Your task to perform on an android device: turn off javascript in the chrome app Image 0: 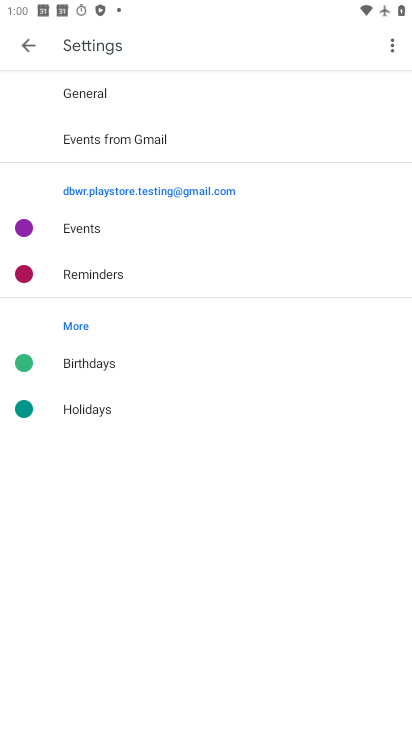
Step 0: press home button
Your task to perform on an android device: turn off javascript in the chrome app Image 1: 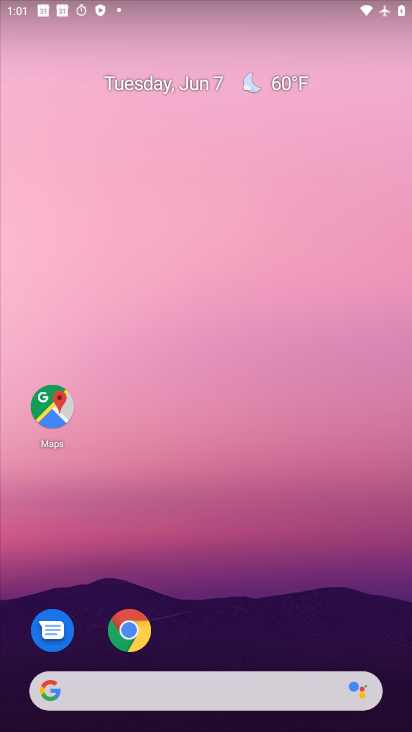
Step 1: drag from (353, 600) to (265, 103)
Your task to perform on an android device: turn off javascript in the chrome app Image 2: 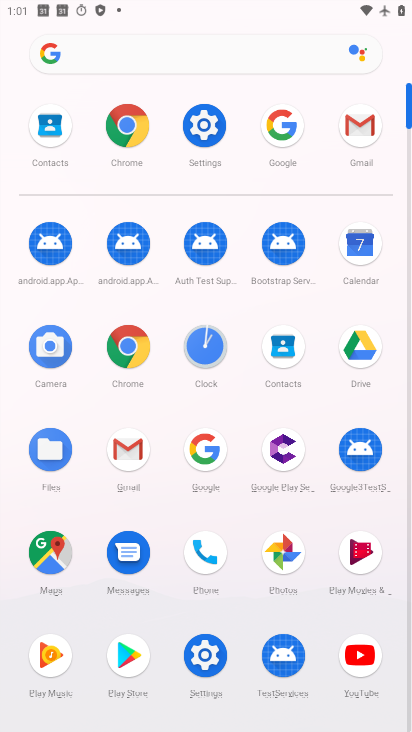
Step 2: click (115, 138)
Your task to perform on an android device: turn off javascript in the chrome app Image 3: 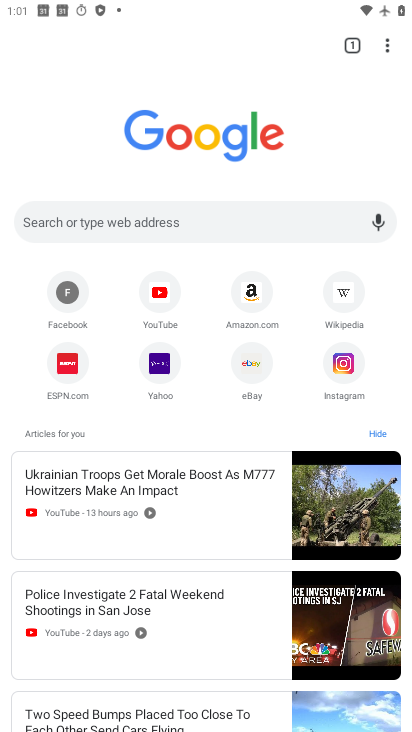
Step 3: click (392, 44)
Your task to perform on an android device: turn off javascript in the chrome app Image 4: 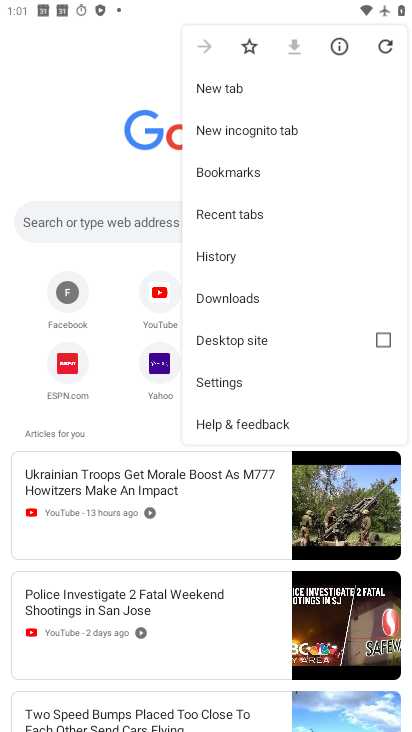
Step 4: click (271, 384)
Your task to perform on an android device: turn off javascript in the chrome app Image 5: 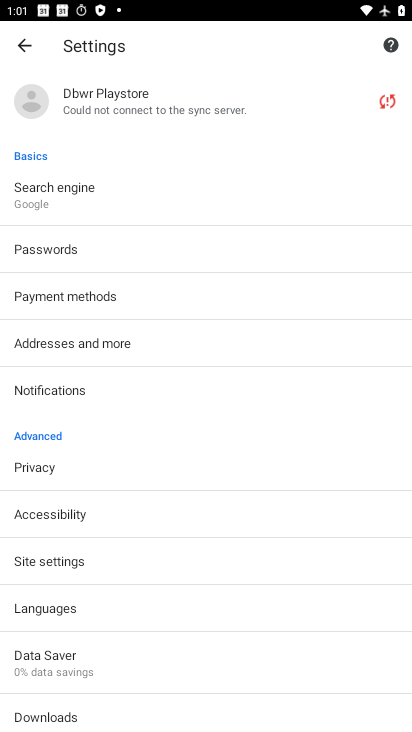
Step 5: click (90, 563)
Your task to perform on an android device: turn off javascript in the chrome app Image 6: 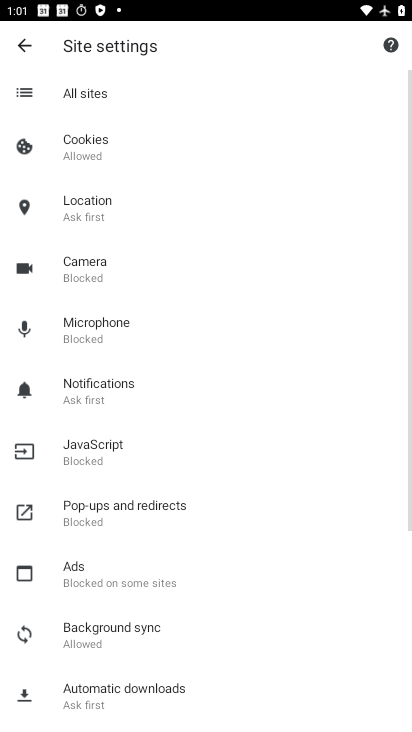
Step 6: click (126, 462)
Your task to perform on an android device: turn off javascript in the chrome app Image 7: 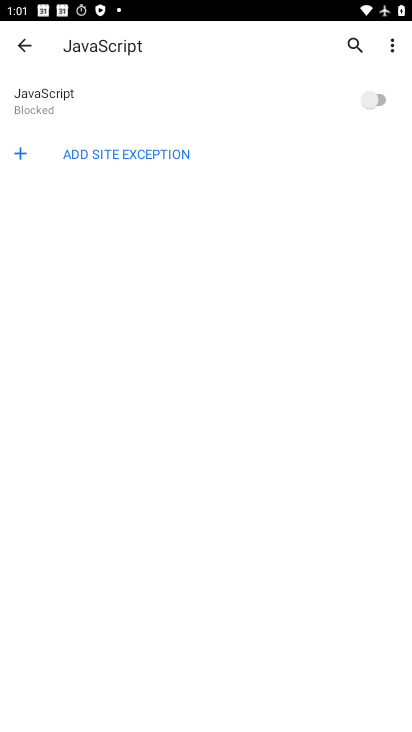
Step 7: task complete